Your task to perform on an android device: Open calendar and show me the first week of next month Image 0: 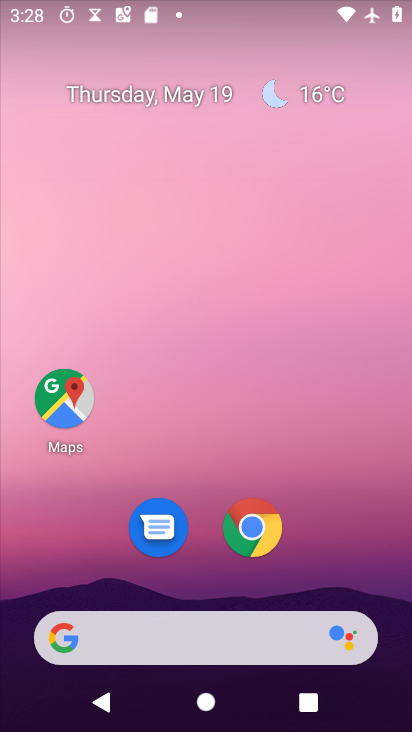
Step 0: drag from (360, 544) to (172, 32)
Your task to perform on an android device: Open calendar and show me the first week of next month Image 1: 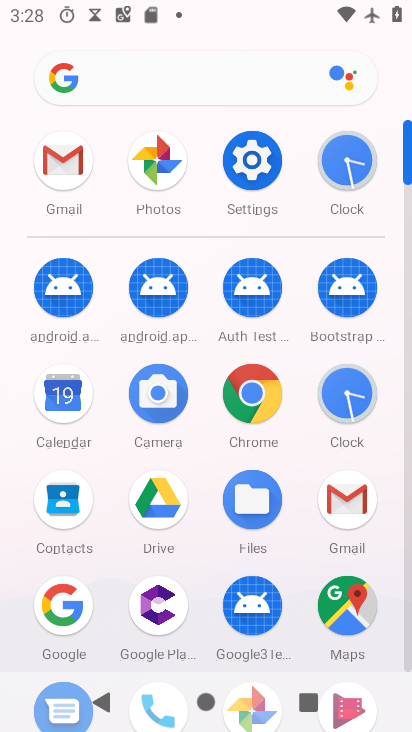
Step 1: click (74, 386)
Your task to perform on an android device: Open calendar and show me the first week of next month Image 2: 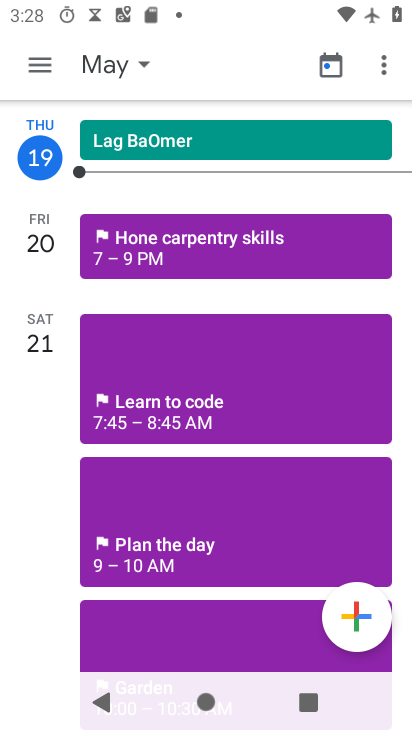
Step 2: click (32, 57)
Your task to perform on an android device: Open calendar and show me the first week of next month Image 3: 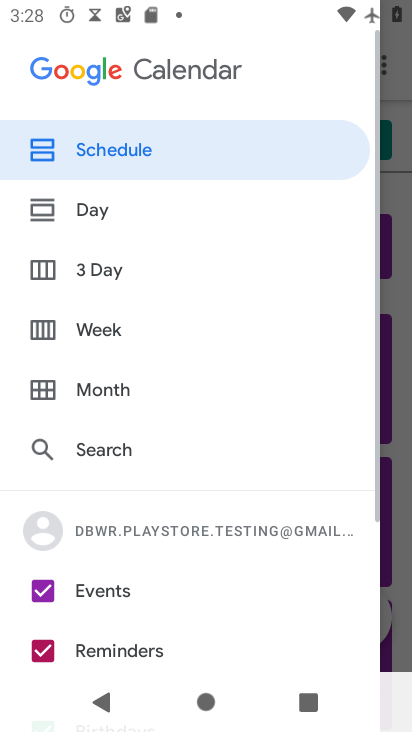
Step 3: click (145, 319)
Your task to perform on an android device: Open calendar and show me the first week of next month Image 4: 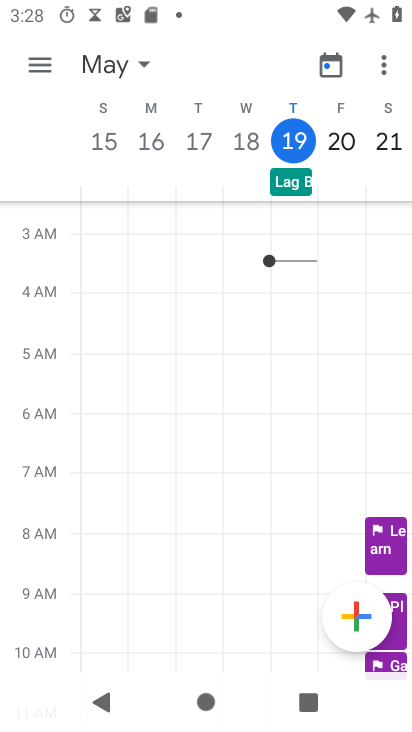
Step 4: click (121, 66)
Your task to perform on an android device: Open calendar and show me the first week of next month Image 5: 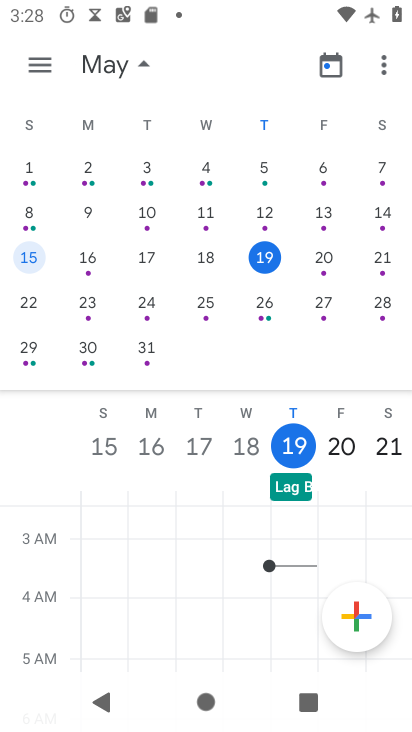
Step 5: task complete